Your task to perform on an android device: toggle pop-ups in chrome Image 0: 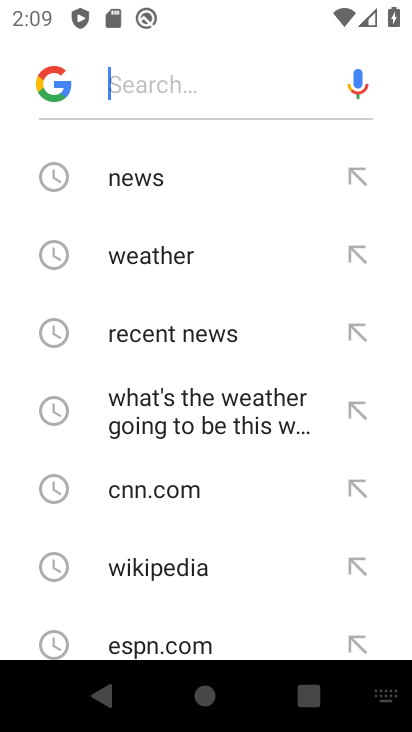
Step 0: press back button
Your task to perform on an android device: toggle pop-ups in chrome Image 1: 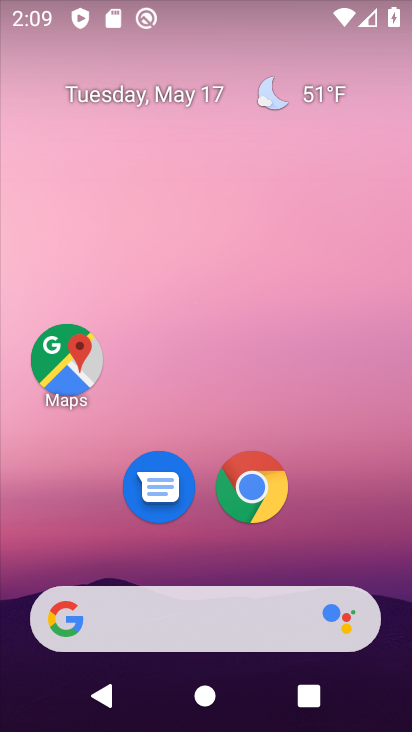
Step 1: click (271, 503)
Your task to perform on an android device: toggle pop-ups in chrome Image 2: 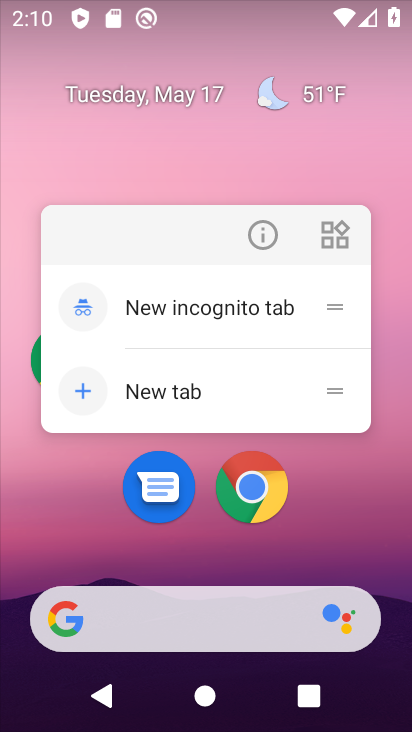
Step 2: click (270, 503)
Your task to perform on an android device: toggle pop-ups in chrome Image 3: 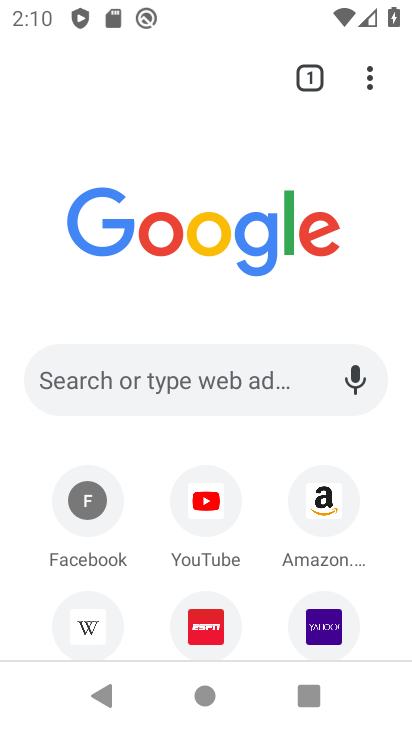
Step 3: drag from (389, 88) to (218, 539)
Your task to perform on an android device: toggle pop-ups in chrome Image 4: 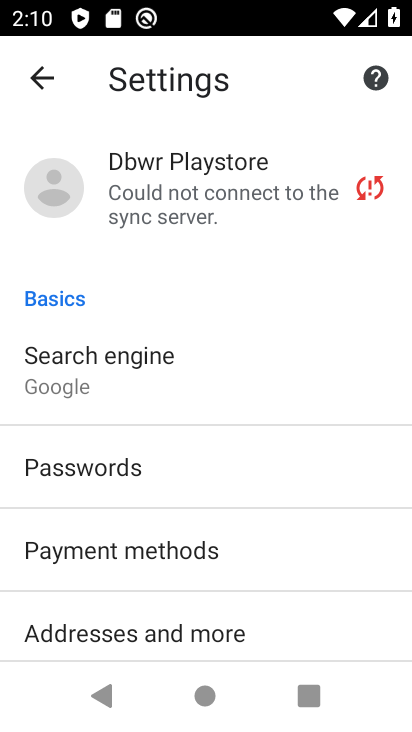
Step 4: drag from (161, 608) to (210, 275)
Your task to perform on an android device: toggle pop-ups in chrome Image 5: 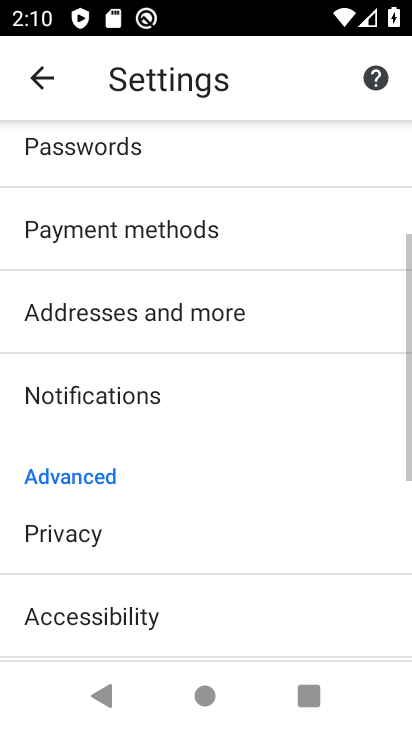
Step 5: drag from (190, 567) to (274, 227)
Your task to perform on an android device: toggle pop-ups in chrome Image 6: 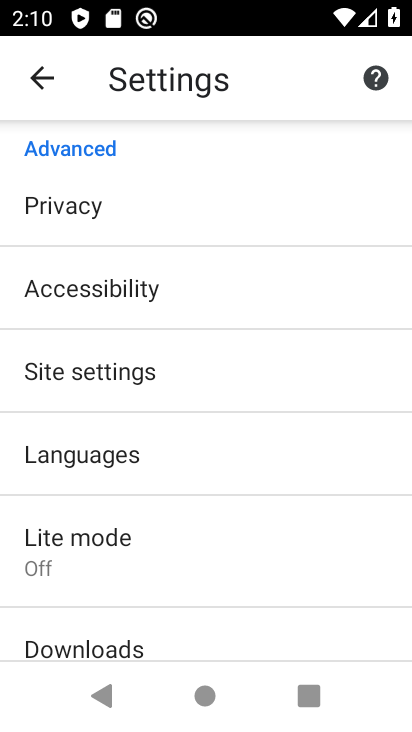
Step 6: click (171, 379)
Your task to perform on an android device: toggle pop-ups in chrome Image 7: 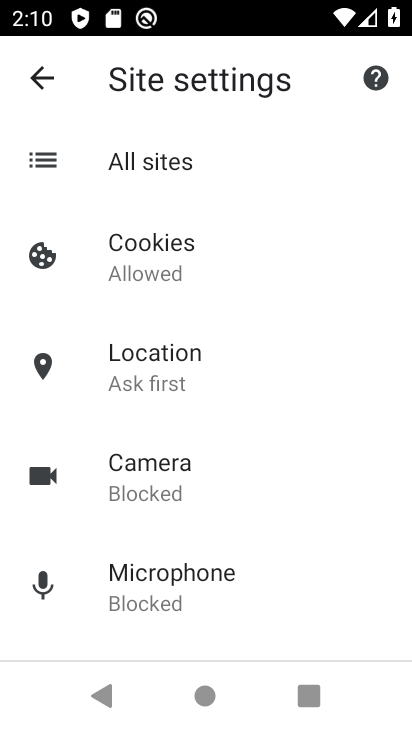
Step 7: drag from (225, 546) to (298, 206)
Your task to perform on an android device: toggle pop-ups in chrome Image 8: 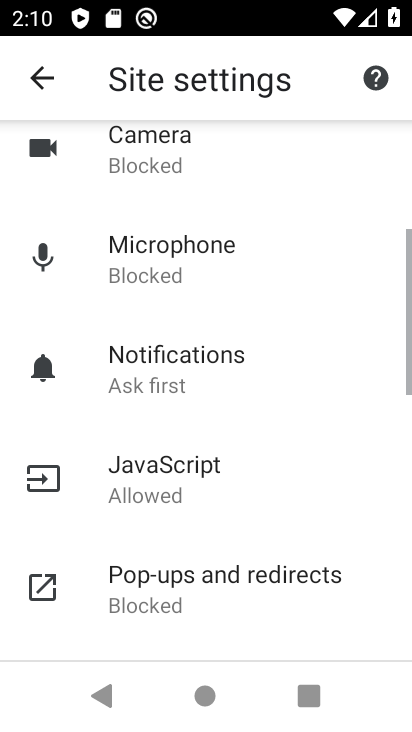
Step 8: drag from (195, 541) to (246, 336)
Your task to perform on an android device: toggle pop-ups in chrome Image 9: 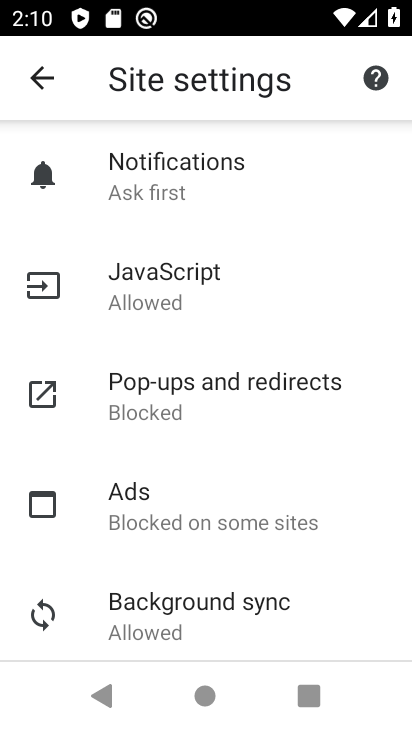
Step 9: click (243, 397)
Your task to perform on an android device: toggle pop-ups in chrome Image 10: 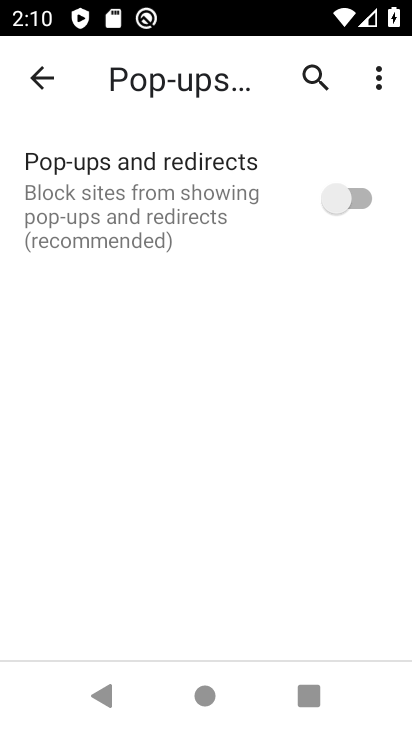
Step 10: click (385, 195)
Your task to perform on an android device: toggle pop-ups in chrome Image 11: 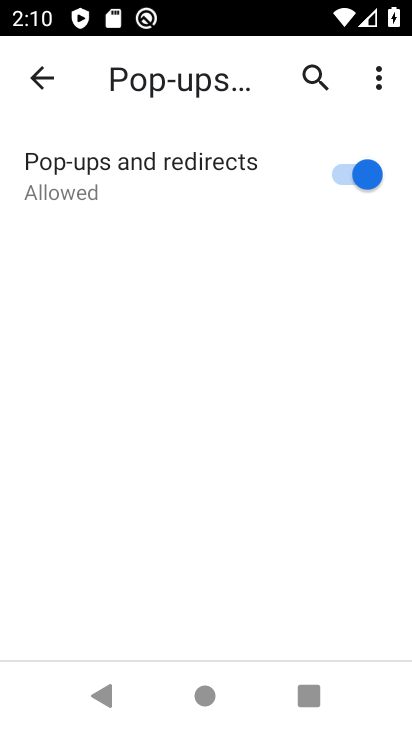
Step 11: task complete